Your task to perform on an android device: Open CNN.com Image 0: 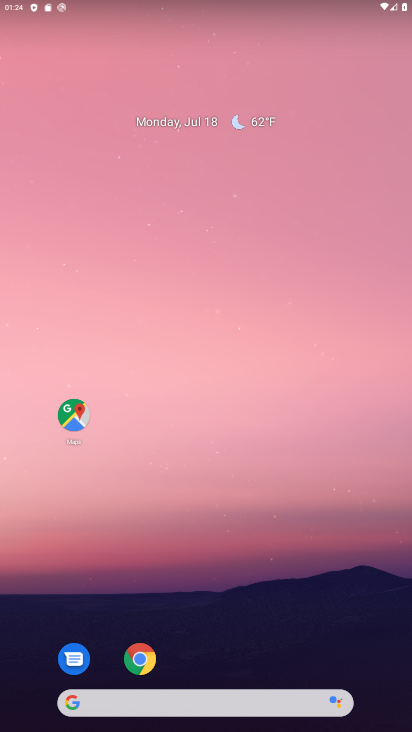
Step 0: drag from (282, 609) to (191, 44)
Your task to perform on an android device: Open CNN.com Image 1: 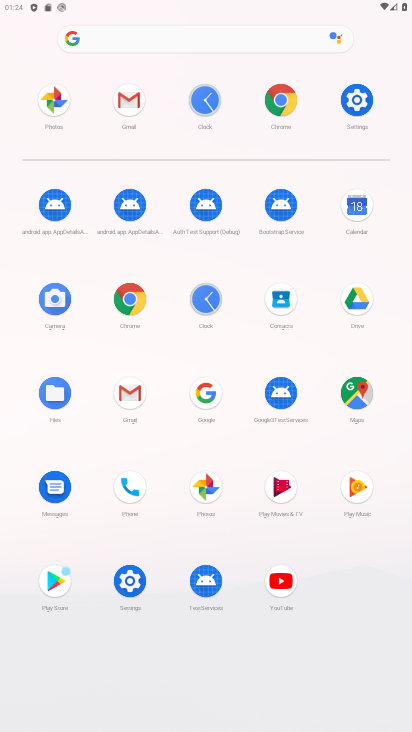
Step 1: click (276, 102)
Your task to perform on an android device: Open CNN.com Image 2: 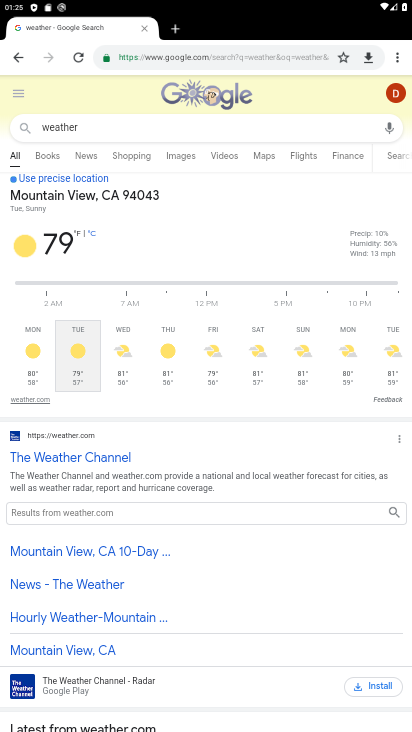
Step 2: click (265, 58)
Your task to perform on an android device: Open CNN.com Image 3: 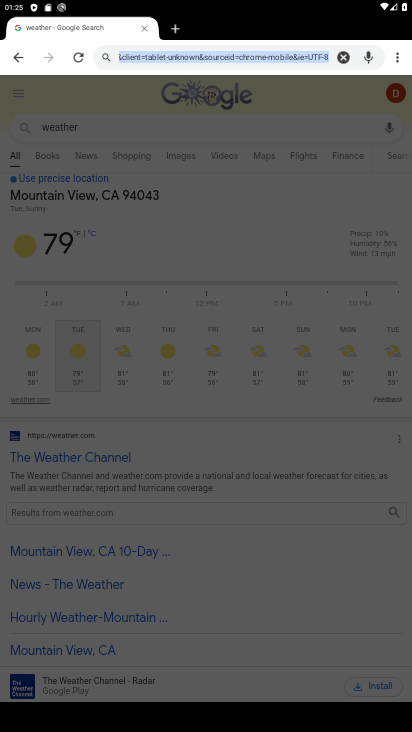
Step 3: type "cnn.com"
Your task to perform on an android device: Open CNN.com Image 4: 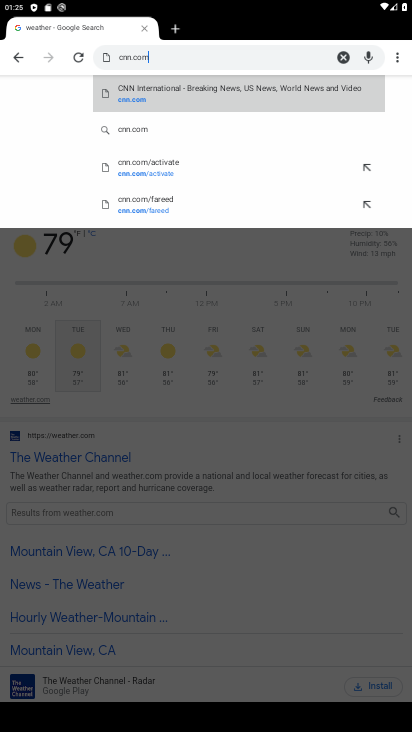
Step 4: click (261, 83)
Your task to perform on an android device: Open CNN.com Image 5: 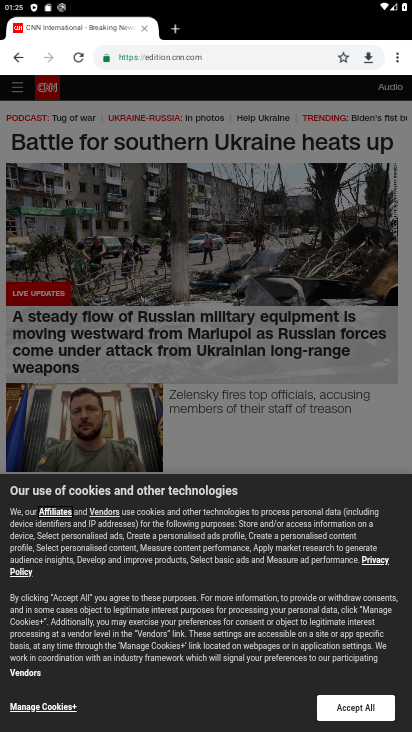
Step 5: task complete